Your task to perform on an android device: turn on data saver in the chrome app Image 0: 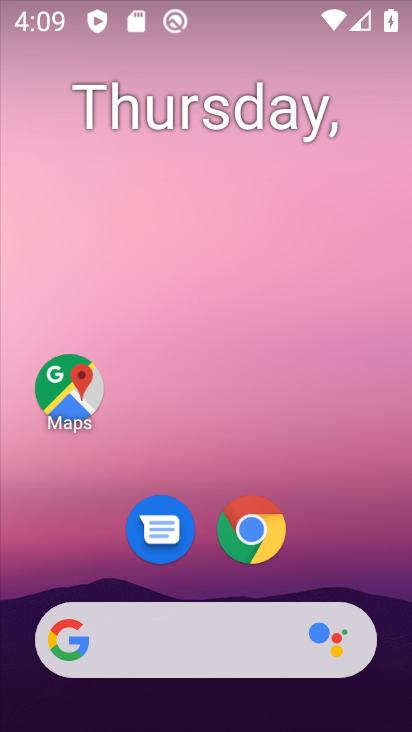
Step 0: click (248, 537)
Your task to perform on an android device: turn on data saver in the chrome app Image 1: 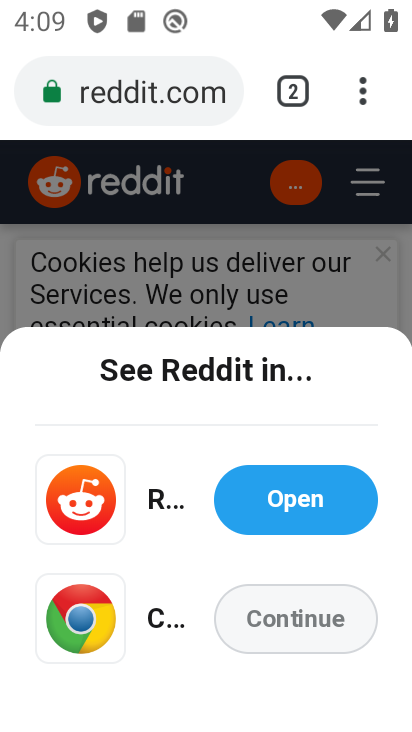
Step 1: click (363, 94)
Your task to perform on an android device: turn on data saver in the chrome app Image 2: 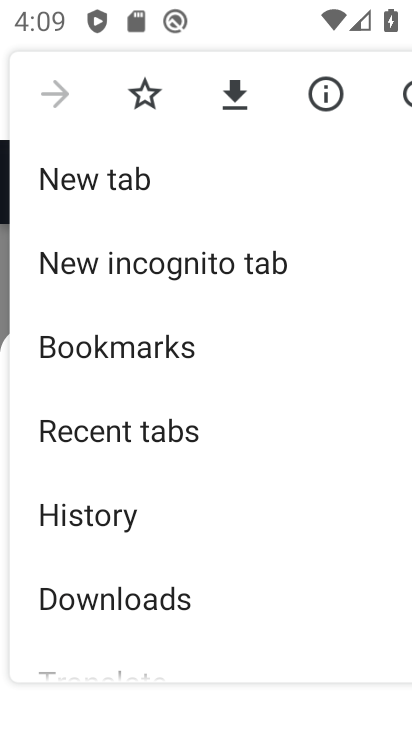
Step 2: drag from (112, 642) to (112, 243)
Your task to perform on an android device: turn on data saver in the chrome app Image 3: 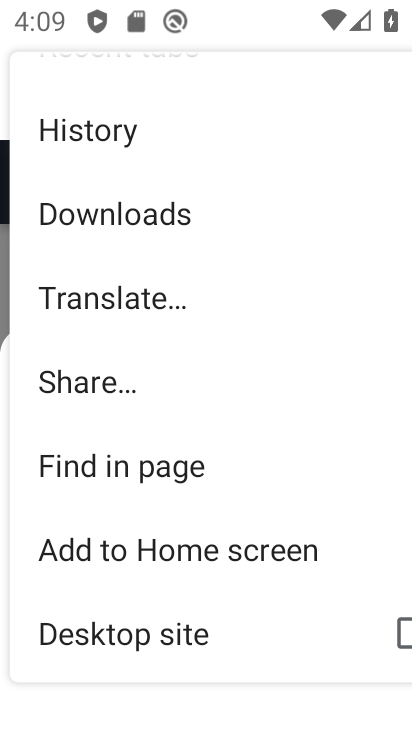
Step 3: drag from (74, 629) to (80, 195)
Your task to perform on an android device: turn on data saver in the chrome app Image 4: 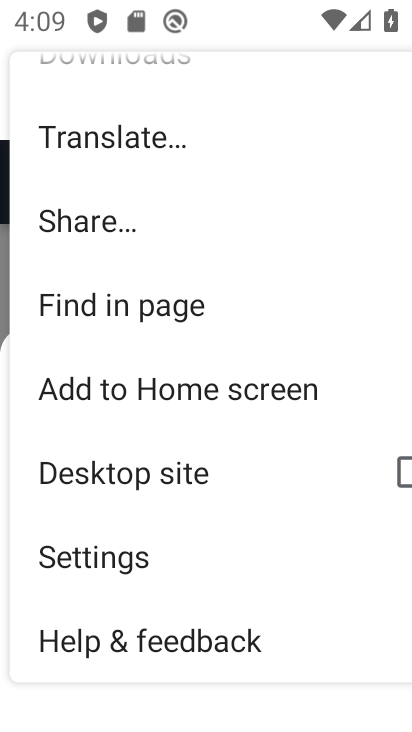
Step 4: click (102, 551)
Your task to perform on an android device: turn on data saver in the chrome app Image 5: 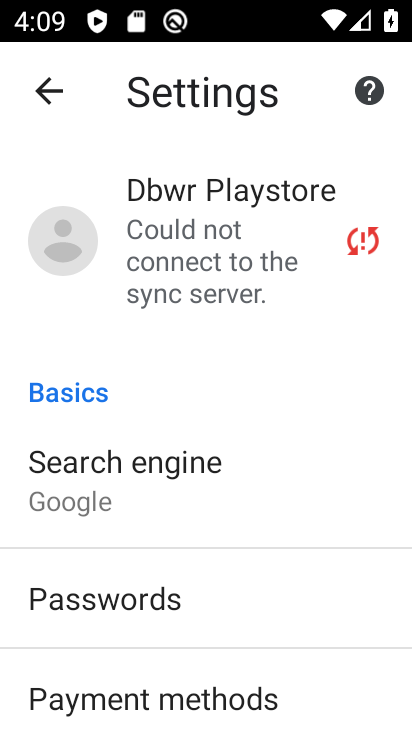
Step 5: drag from (110, 667) to (113, 325)
Your task to perform on an android device: turn on data saver in the chrome app Image 6: 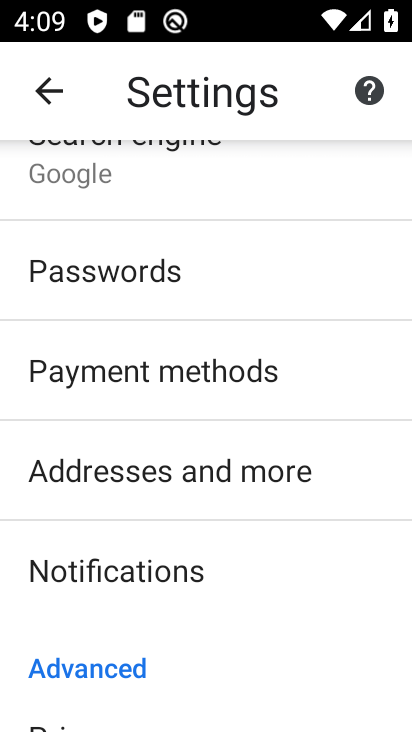
Step 6: drag from (156, 660) to (139, 332)
Your task to perform on an android device: turn on data saver in the chrome app Image 7: 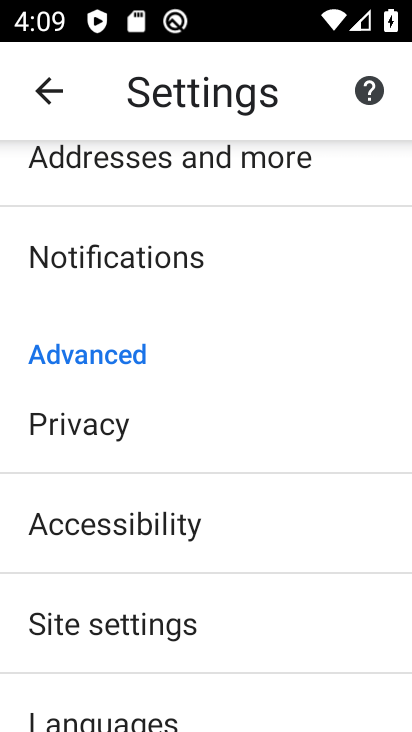
Step 7: drag from (119, 668) to (119, 257)
Your task to perform on an android device: turn on data saver in the chrome app Image 8: 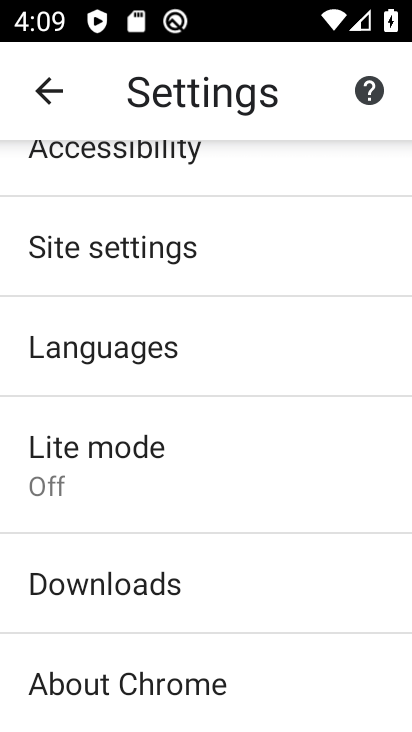
Step 8: click (103, 449)
Your task to perform on an android device: turn on data saver in the chrome app Image 9: 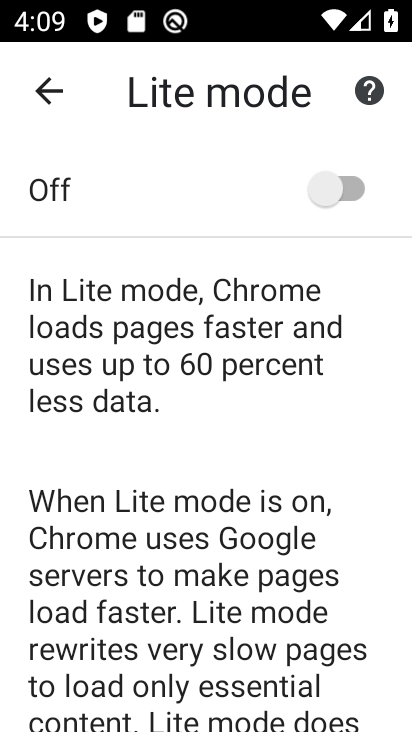
Step 9: click (352, 188)
Your task to perform on an android device: turn on data saver in the chrome app Image 10: 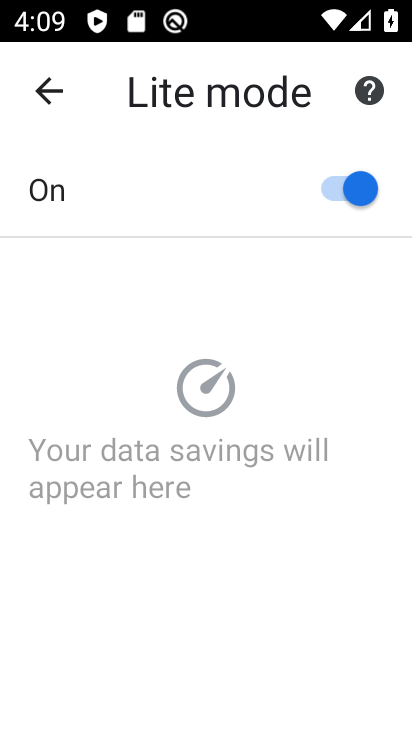
Step 10: task complete